Your task to perform on an android device: clear all cookies in the chrome app Image 0: 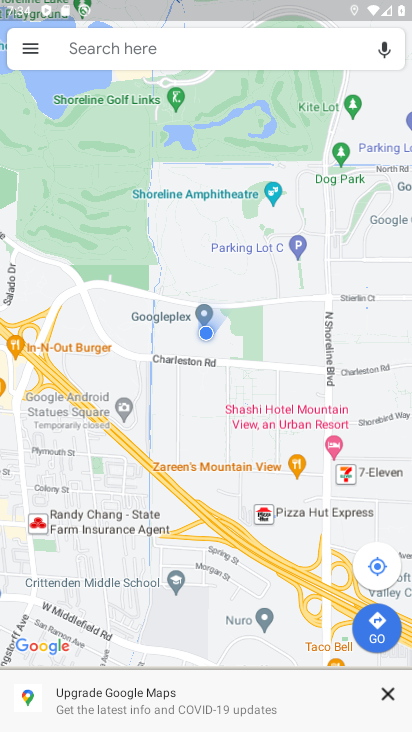
Step 0: press home button
Your task to perform on an android device: clear all cookies in the chrome app Image 1: 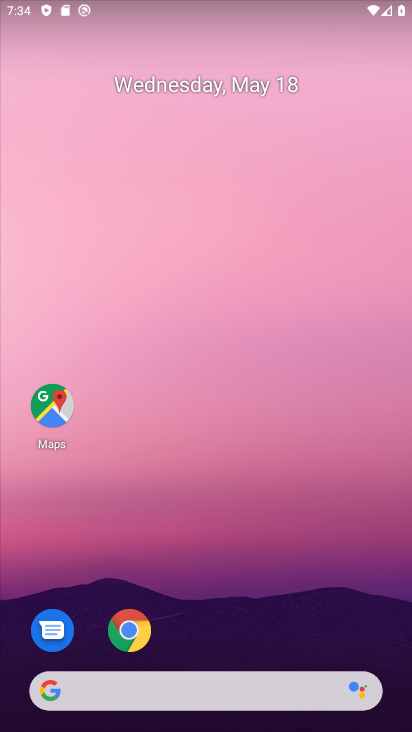
Step 1: click (131, 637)
Your task to perform on an android device: clear all cookies in the chrome app Image 2: 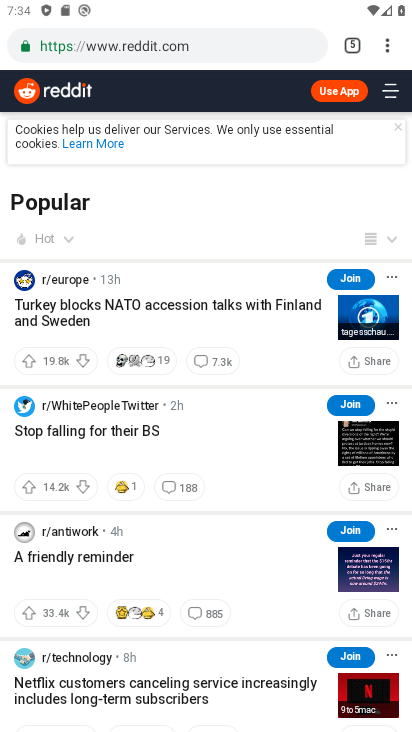
Step 2: click (380, 42)
Your task to perform on an android device: clear all cookies in the chrome app Image 3: 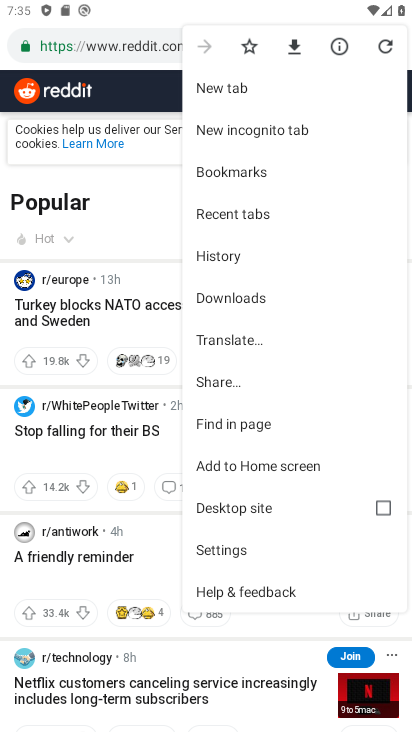
Step 3: click (233, 547)
Your task to perform on an android device: clear all cookies in the chrome app Image 4: 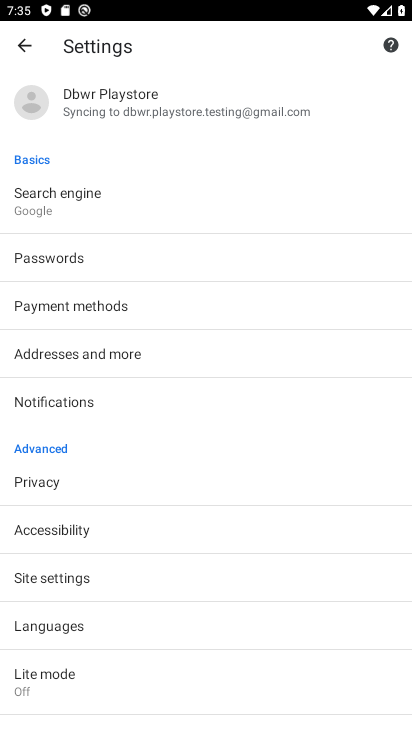
Step 4: drag from (161, 584) to (118, 340)
Your task to perform on an android device: clear all cookies in the chrome app Image 5: 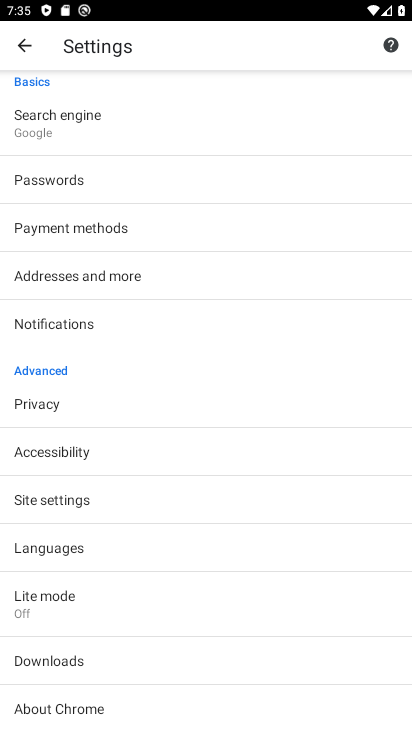
Step 5: click (36, 402)
Your task to perform on an android device: clear all cookies in the chrome app Image 6: 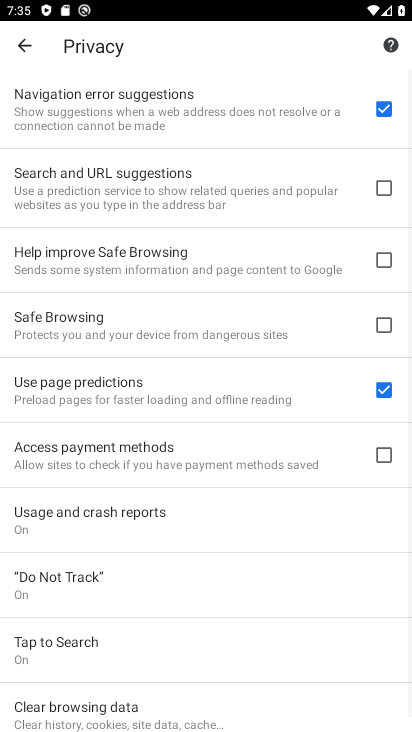
Step 6: drag from (240, 573) to (193, 248)
Your task to perform on an android device: clear all cookies in the chrome app Image 7: 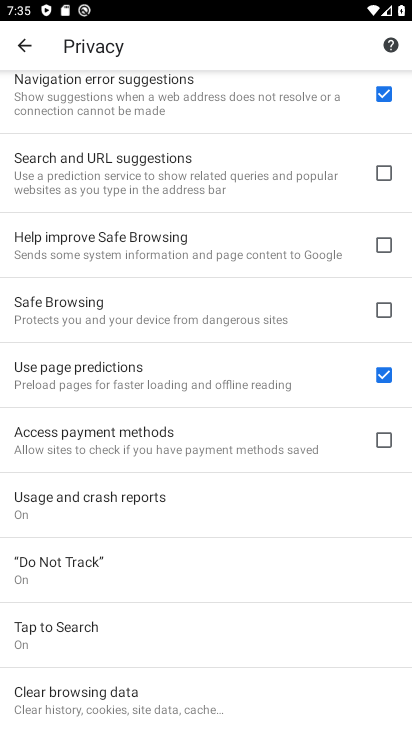
Step 7: click (111, 697)
Your task to perform on an android device: clear all cookies in the chrome app Image 8: 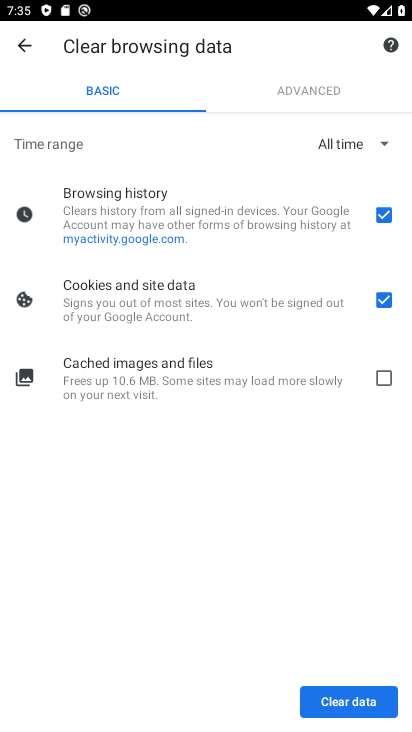
Step 8: click (391, 220)
Your task to perform on an android device: clear all cookies in the chrome app Image 9: 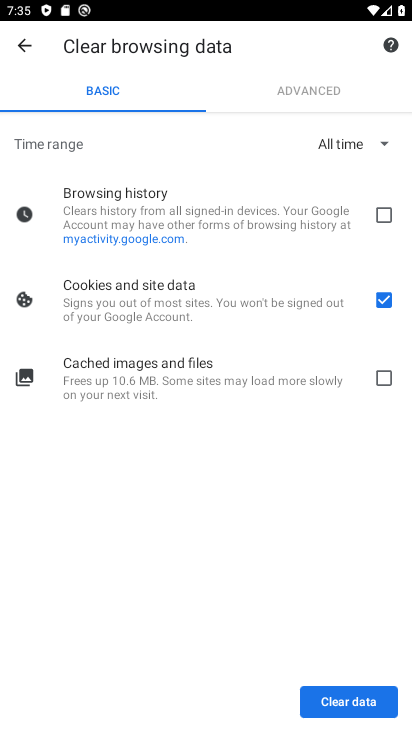
Step 9: click (351, 708)
Your task to perform on an android device: clear all cookies in the chrome app Image 10: 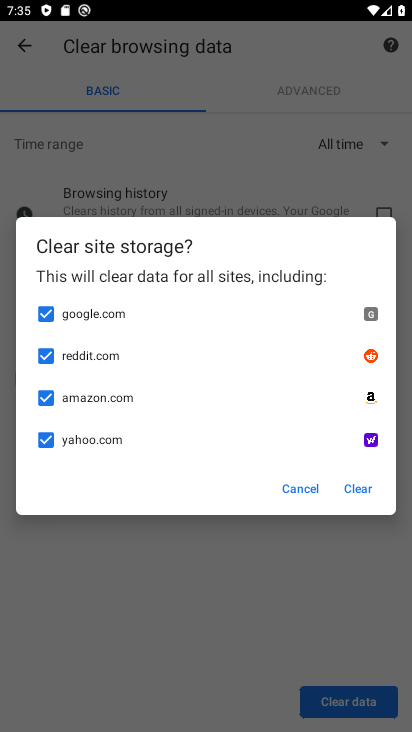
Step 10: click (358, 493)
Your task to perform on an android device: clear all cookies in the chrome app Image 11: 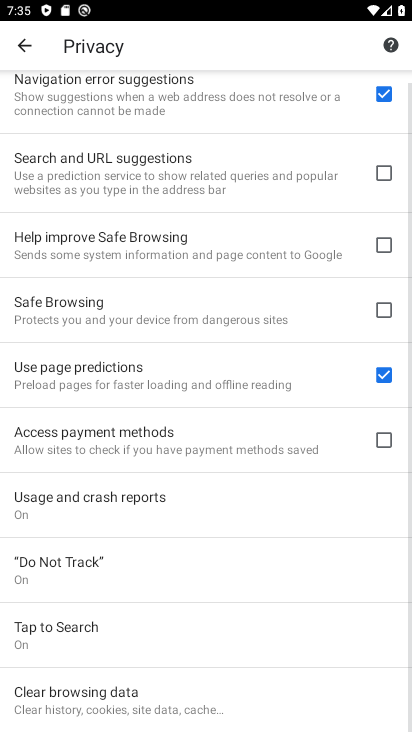
Step 11: task complete